Your task to perform on an android device: What's the weather going to be tomorrow? Image 0: 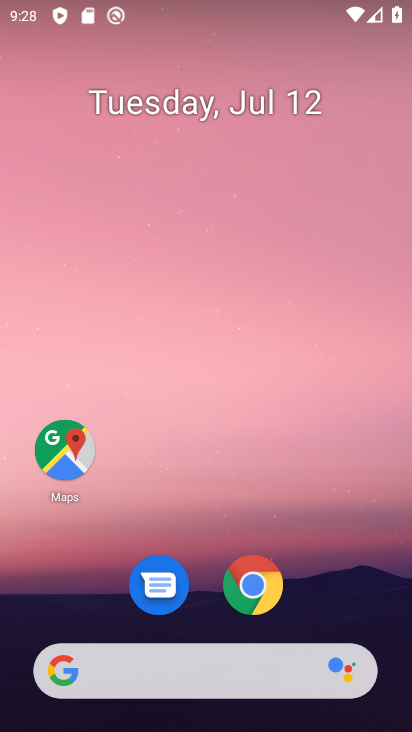
Step 0: click (153, 672)
Your task to perform on an android device: What's the weather going to be tomorrow? Image 1: 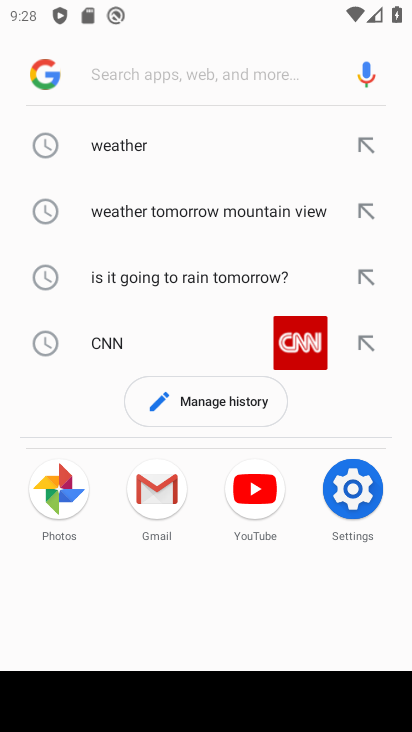
Step 1: click (130, 142)
Your task to perform on an android device: What's the weather going to be tomorrow? Image 2: 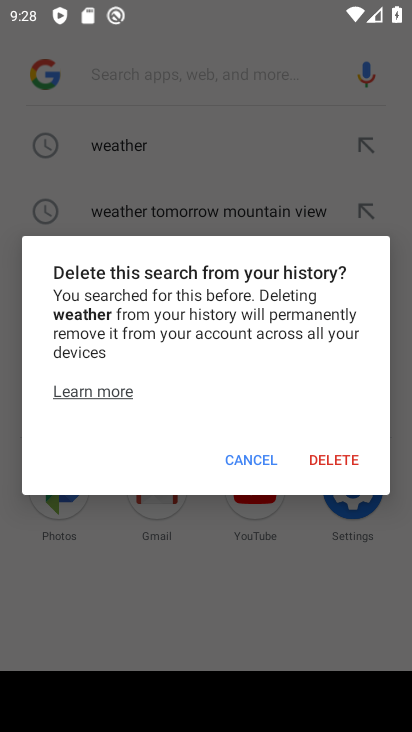
Step 2: click (225, 597)
Your task to perform on an android device: What's the weather going to be tomorrow? Image 3: 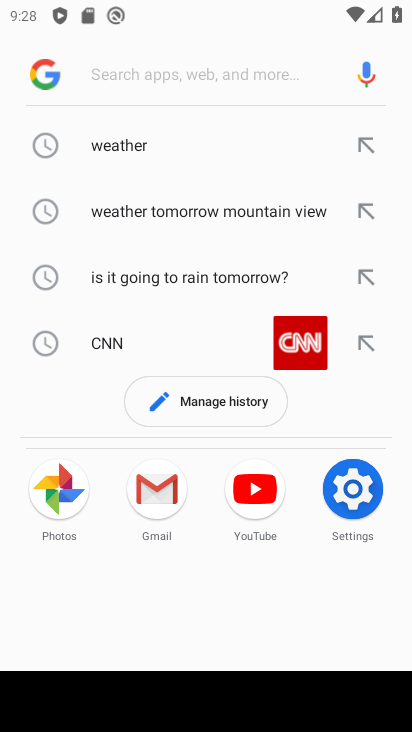
Step 3: click (123, 142)
Your task to perform on an android device: What's the weather going to be tomorrow? Image 4: 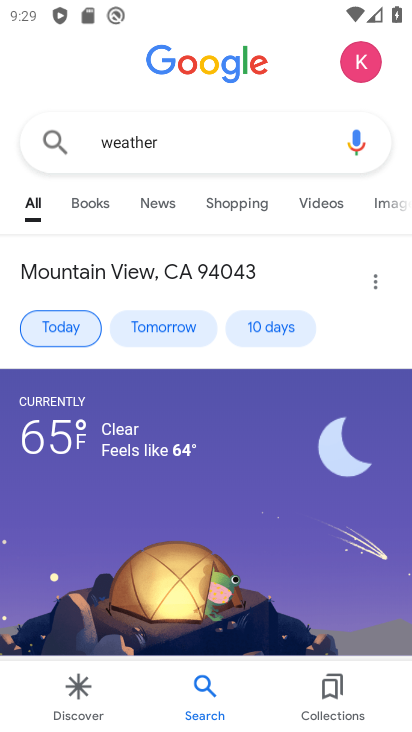
Step 4: click (177, 326)
Your task to perform on an android device: What's the weather going to be tomorrow? Image 5: 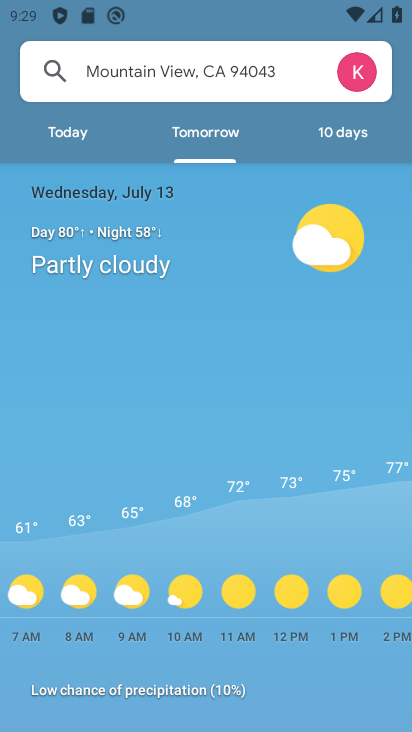
Step 5: task complete